Your task to perform on an android device: Open privacy settings Image 0: 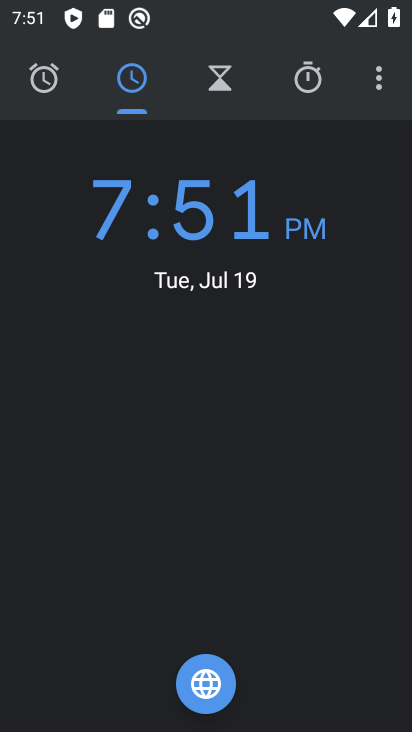
Step 0: press back button
Your task to perform on an android device: Open privacy settings Image 1: 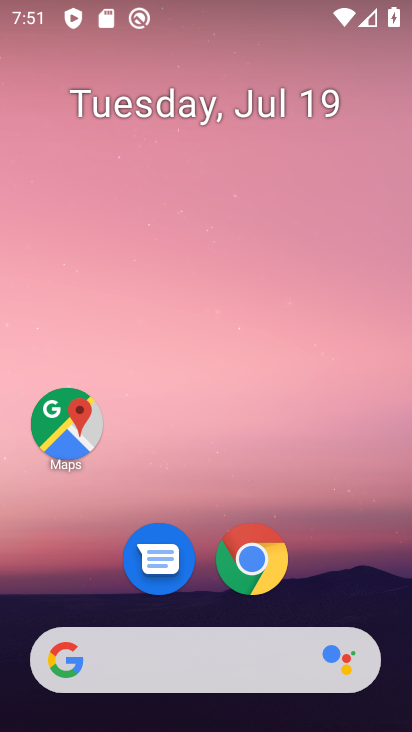
Step 1: drag from (78, 571) to (147, 7)
Your task to perform on an android device: Open privacy settings Image 2: 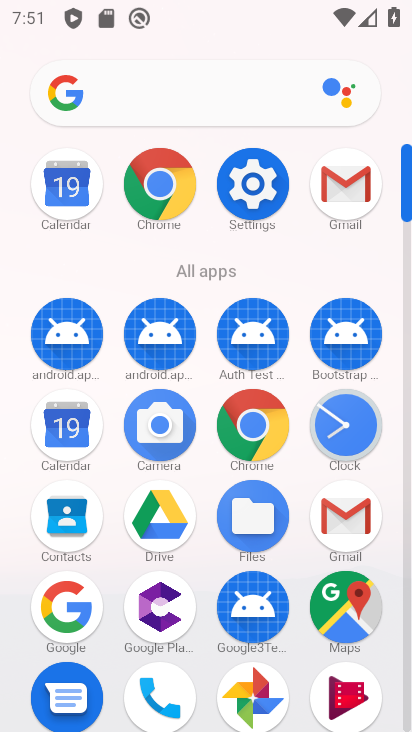
Step 2: click (258, 183)
Your task to perform on an android device: Open privacy settings Image 3: 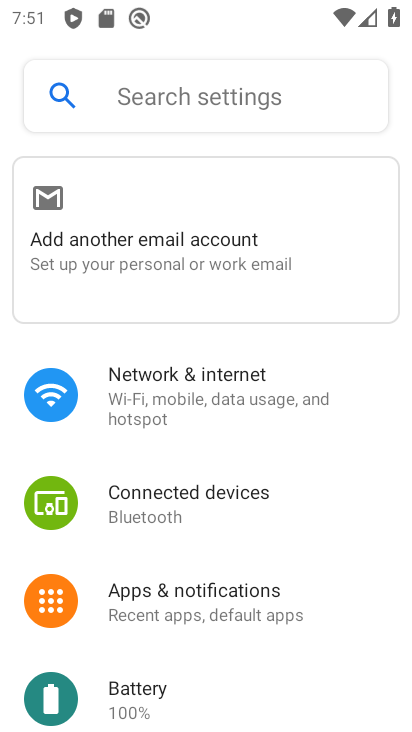
Step 3: drag from (166, 676) to (244, 59)
Your task to perform on an android device: Open privacy settings Image 4: 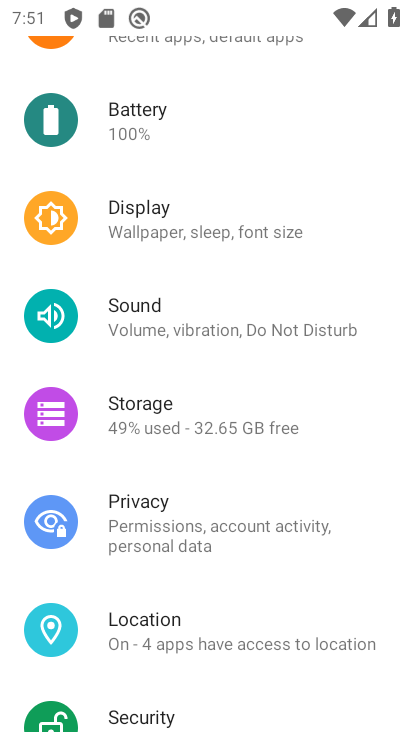
Step 4: click (153, 508)
Your task to perform on an android device: Open privacy settings Image 5: 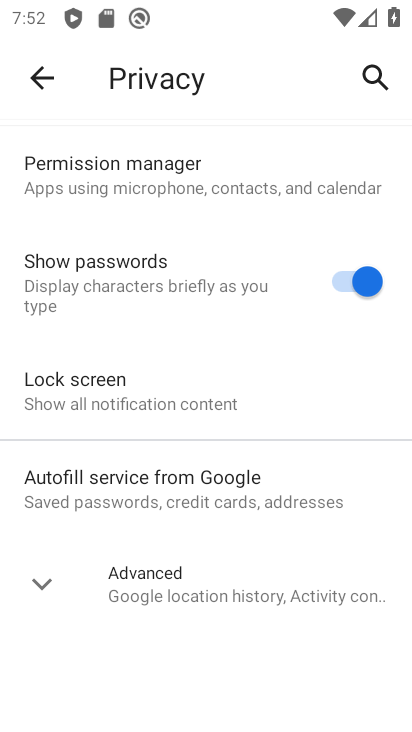
Step 5: task complete